Your task to perform on an android device: Toggle the flashlight Image 0: 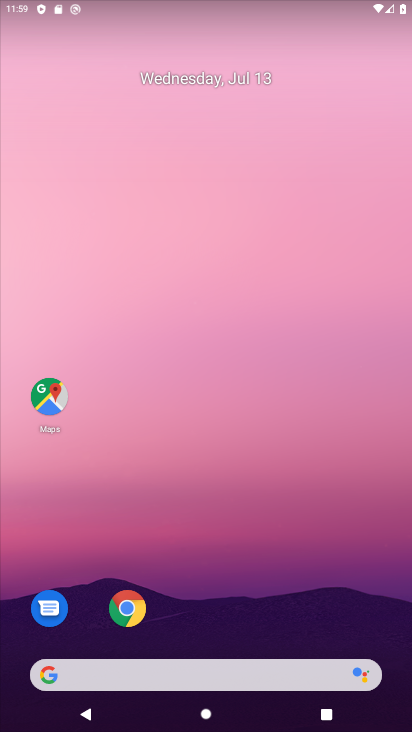
Step 0: drag from (49, 560) to (249, 126)
Your task to perform on an android device: Toggle the flashlight Image 1: 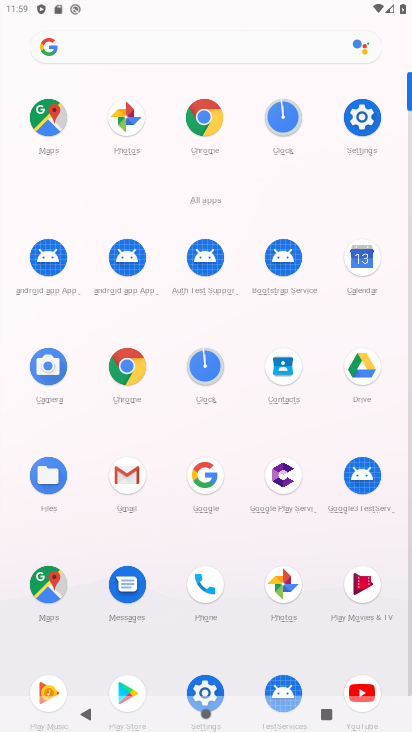
Step 1: click (363, 125)
Your task to perform on an android device: Toggle the flashlight Image 2: 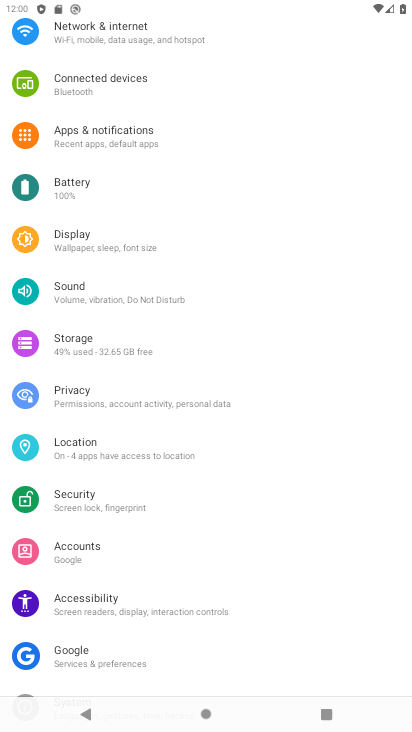
Step 2: task complete